Your task to perform on an android device: turn off notifications in google photos Image 0: 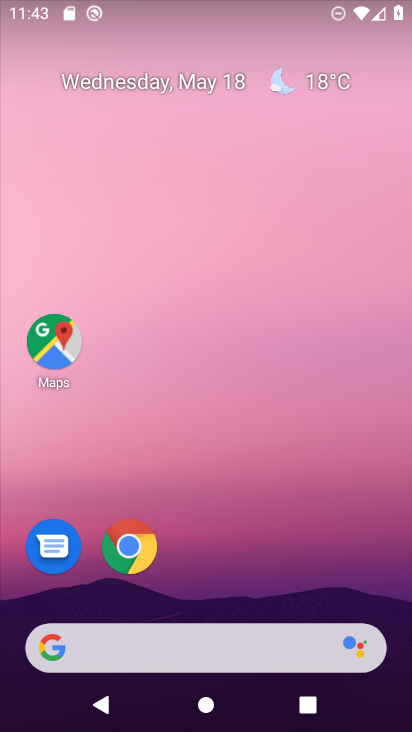
Step 0: drag from (222, 726) to (237, 220)
Your task to perform on an android device: turn off notifications in google photos Image 1: 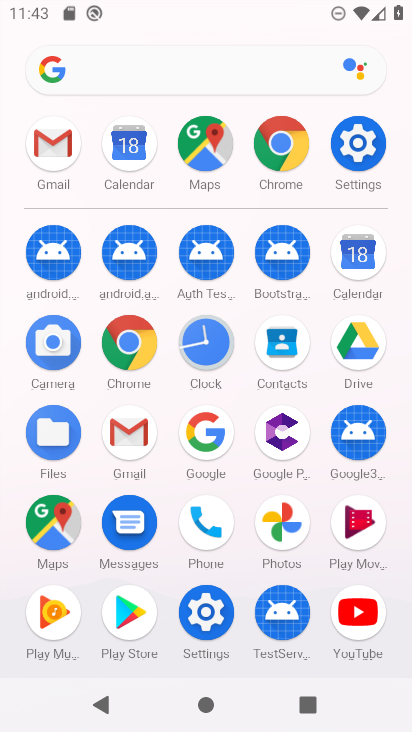
Step 1: click (277, 519)
Your task to perform on an android device: turn off notifications in google photos Image 2: 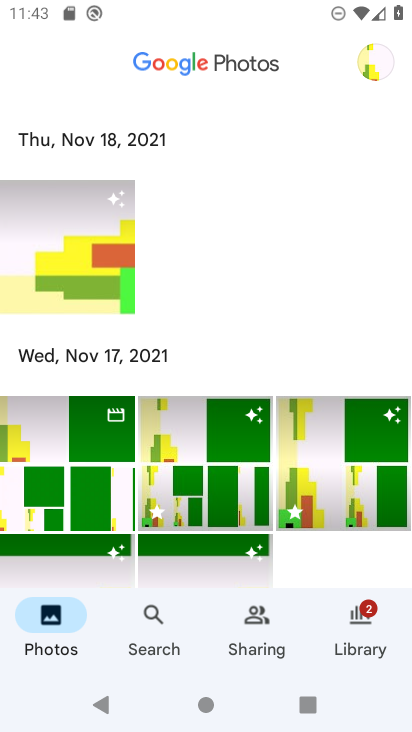
Step 2: click (375, 71)
Your task to perform on an android device: turn off notifications in google photos Image 3: 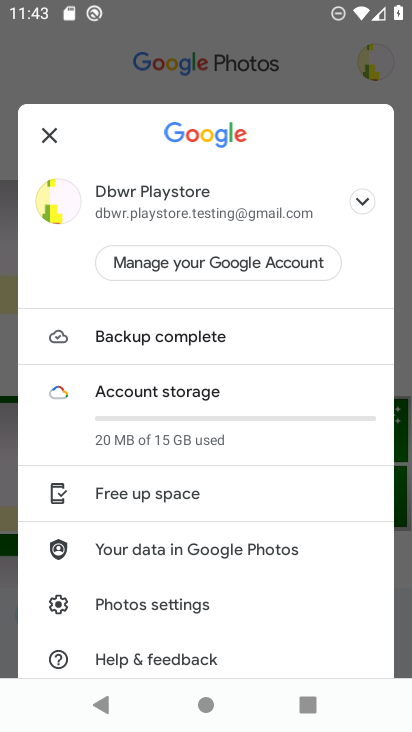
Step 3: click (171, 599)
Your task to perform on an android device: turn off notifications in google photos Image 4: 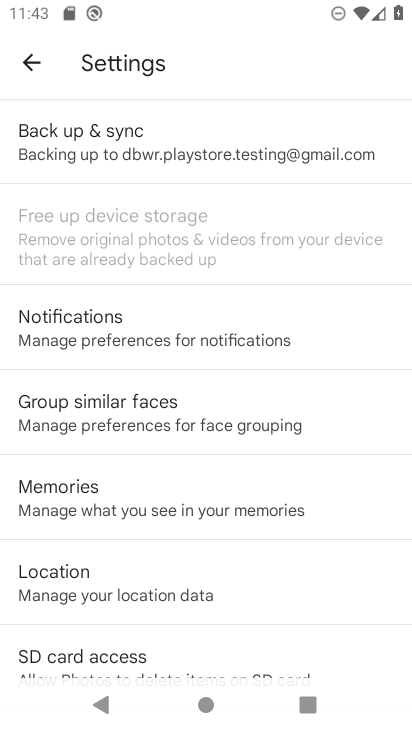
Step 4: click (120, 333)
Your task to perform on an android device: turn off notifications in google photos Image 5: 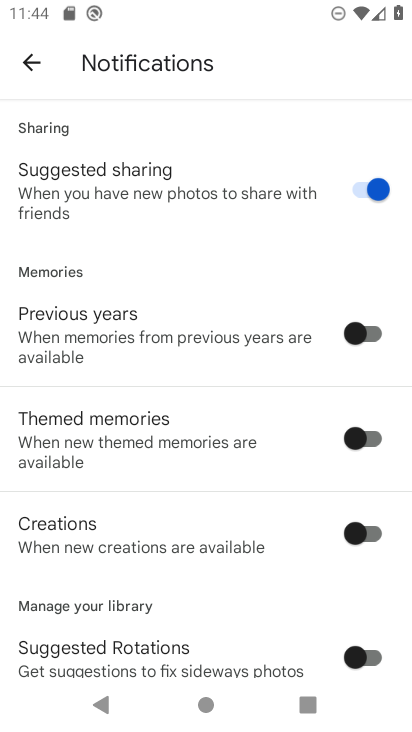
Step 5: drag from (144, 644) to (155, 243)
Your task to perform on an android device: turn off notifications in google photos Image 6: 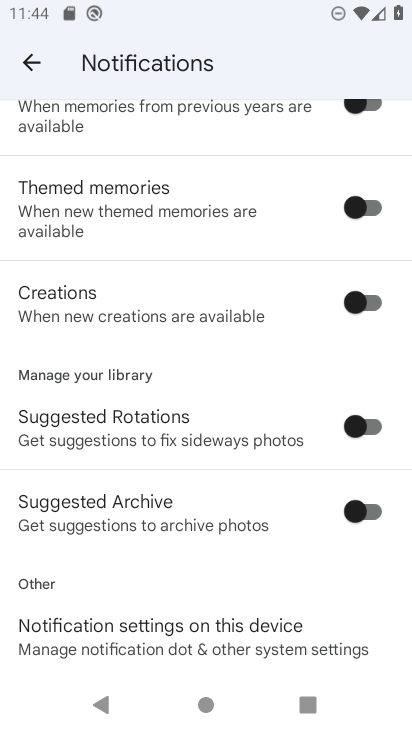
Step 6: click (154, 620)
Your task to perform on an android device: turn off notifications in google photos Image 7: 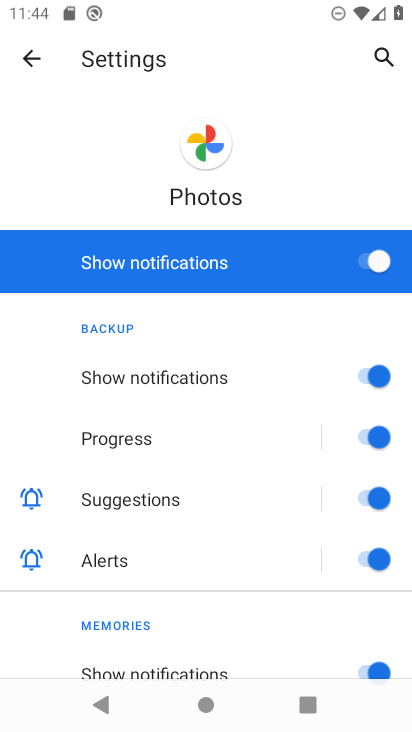
Step 7: click (361, 267)
Your task to perform on an android device: turn off notifications in google photos Image 8: 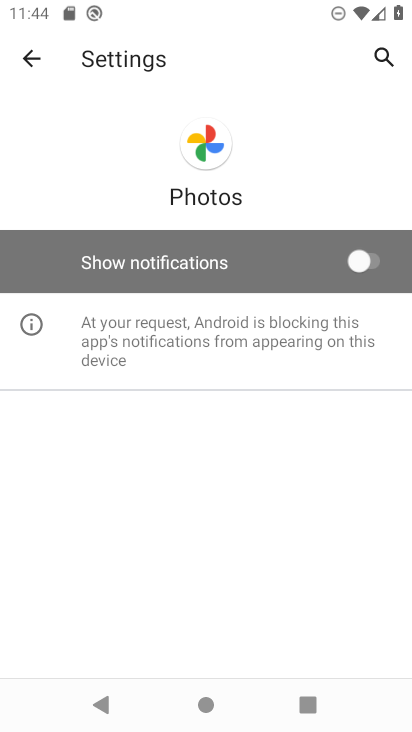
Step 8: task complete